Your task to perform on an android device: Show the shopping cart on newegg.com. Search for dell alienware on newegg.com, select the first entry, add it to the cart, then select checkout. Image 0: 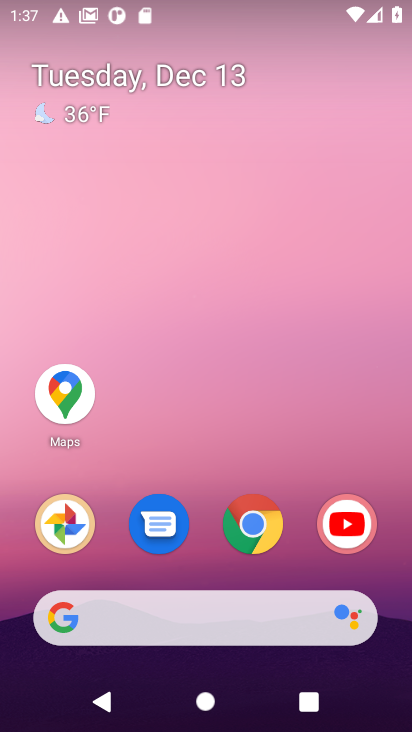
Step 0: click (253, 528)
Your task to perform on an android device: Show the shopping cart on newegg.com. Search for dell alienware on newegg.com, select the first entry, add it to the cart, then select checkout. Image 1: 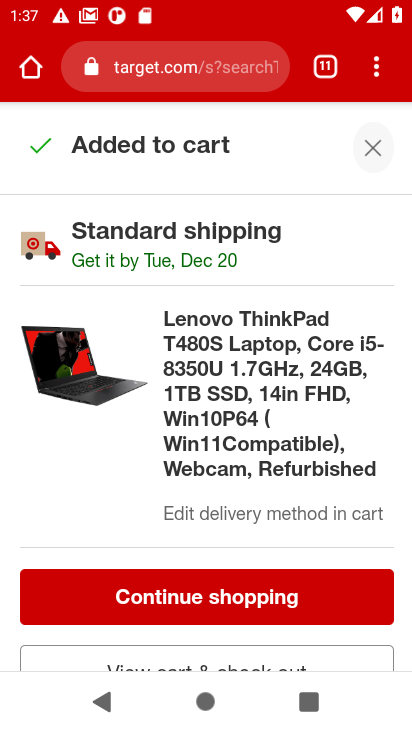
Step 1: click (160, 66)
Your task to perform on an android device: Show the shopping cart on newegg.com. Search for dell alienware on newegg.com, select the first entry, add it to the cart, then select checkout. Image 2: 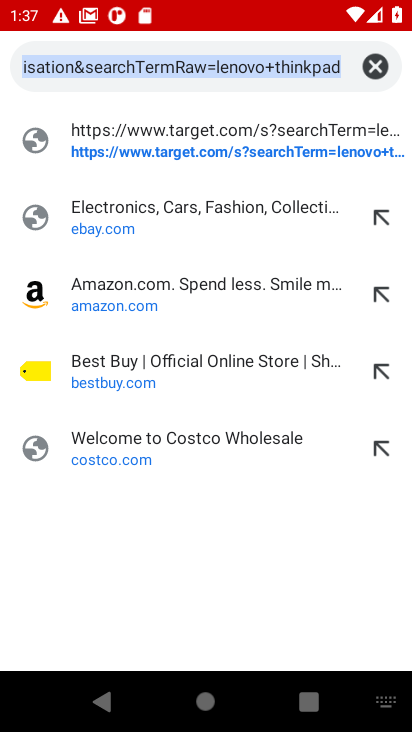
Step 2: type "newegg.com"
Your task to perform on an android device: Show the shopping cart on newegg.com. Search for dell alienware on newegg.com, select the first entry, add it to the cart, then select checkout. Image 3: 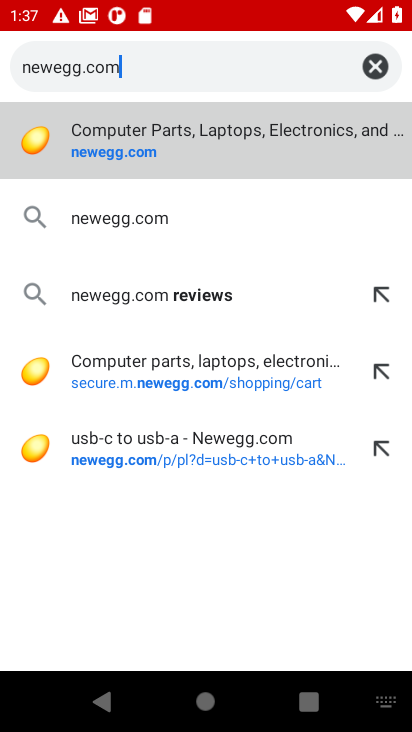
Step 3: click (112, 154)
Your task to perform on an android device: Show the shopping cart on newegg.com. Search for dell alienware on newegg.com, select the first entry, add it to the cart, then select checkout. Image 4: 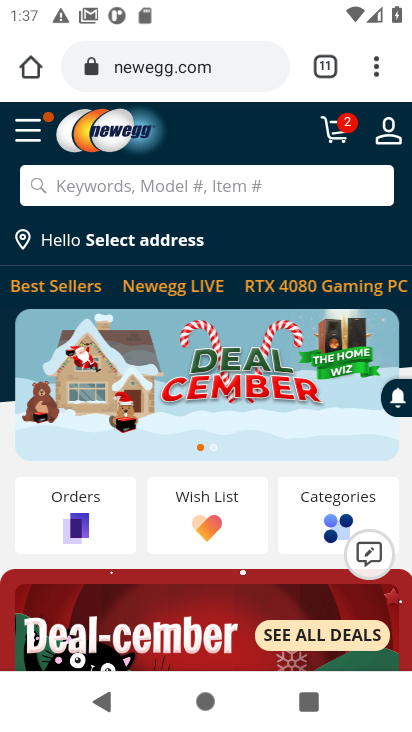
Step 4: click (336, 138)
Your task to perform on an android device: Show the shopping cart on newegg.com. Search for dell alienware on newegg.com, select the first entry, add it to the cart, then select checkout. Image 5: 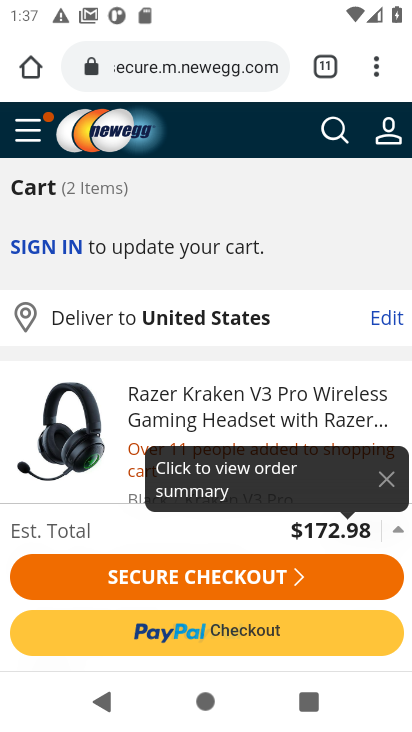
Step 5: click (221, 460)
Your task to perform on an android device: Show the shopping cart on newegg.com. Search for dell alienware on newegg.com, select the first entry, add it to the cart, then select checkout. Image 6: 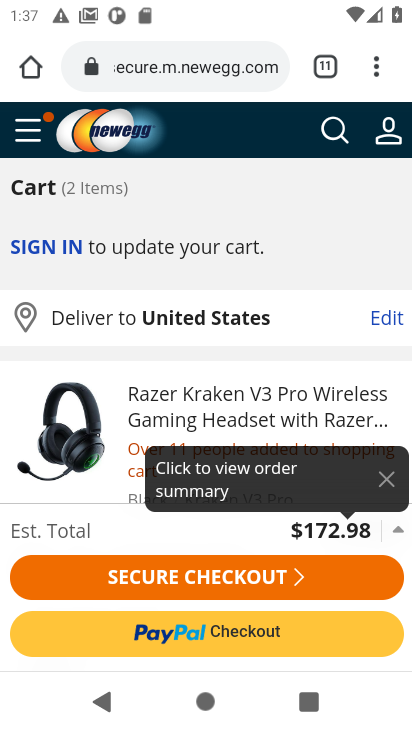
Step 6: drag from (221, 460) to (230, 376)
Your task to perform on an android device: Show the shopping cart on newegg.com. Search for dell alienware on newegg.com, select the first entry, add it to the cart, then select checkout. Image 7: 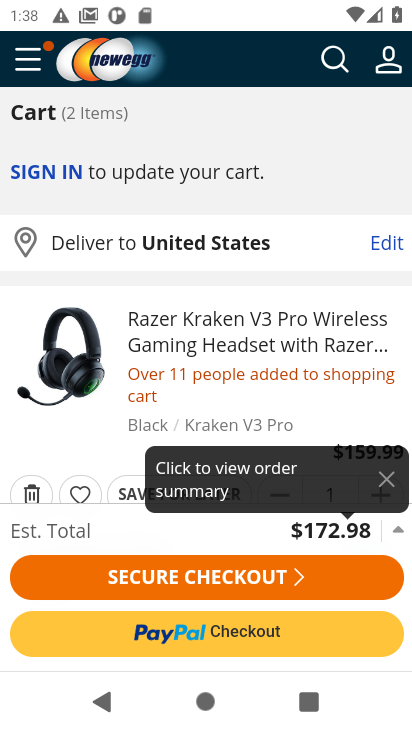
Step 7: click (384, 484)
Your task to perform on an android device: Show the shopping cart on newegg.com. Search for dell alienware on newegg.com, select the first entry, add it to the cart, then select checkout. Image 8: 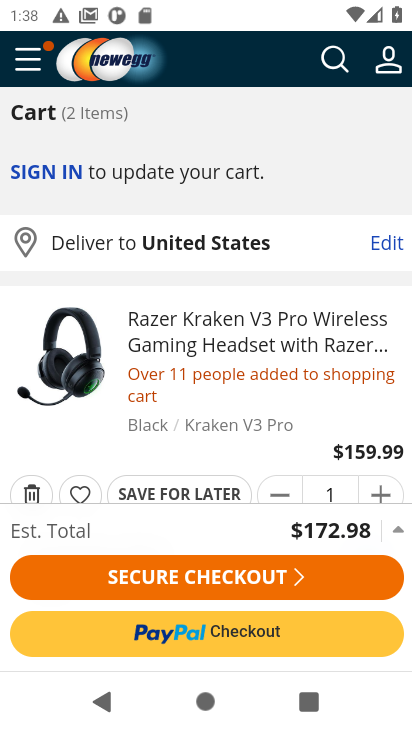
Step 8: drag from (155, 438) to (161, 356)
Your task to perform on an android device: Show the shopping cart on newegg.com. Search for dell alienware on newegg.com, select the first entry, add it to the cart, then select checkout. Image 9: 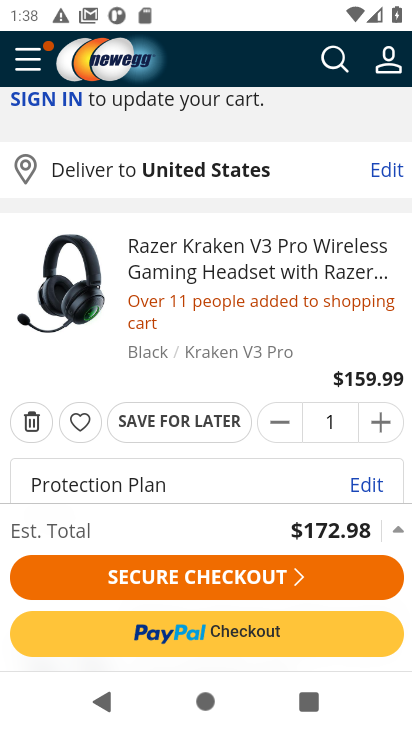
Step 9: click (335, 52)
Your task to perform on an android device: Show the shopping cart on newegg.com. Search for dell alienware on newegg.com, select the first entry, add it to the cart, then select checkout. Image 10: 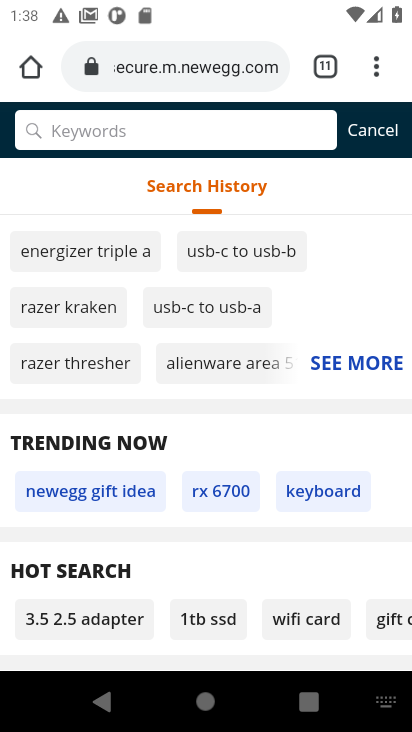
Step 10: type "dell alienware"
Your task to perform on an android device: Show the shopping cart on newegg.com. Search for dell alienware on newegg.com, select the first entry, add it to the cart, then select checkout. Image 11: 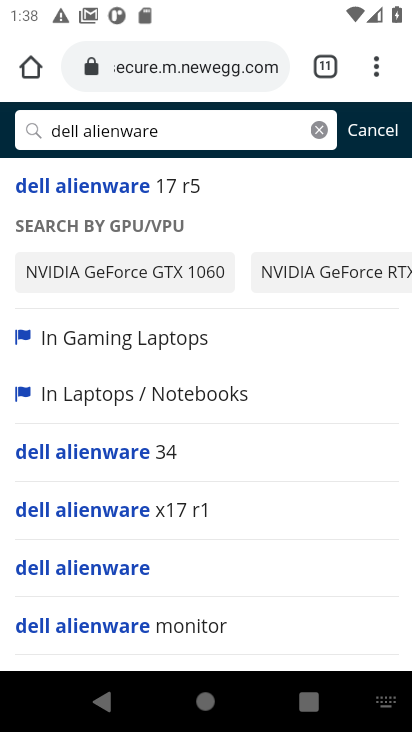
Step 11: click (75, 572)
Your task to perform on an android device: Show the shopping cart on newegg.com. Search for dell alienware on newegg.com, select the first entry, add it to the cart, then select checkout. Image 12: 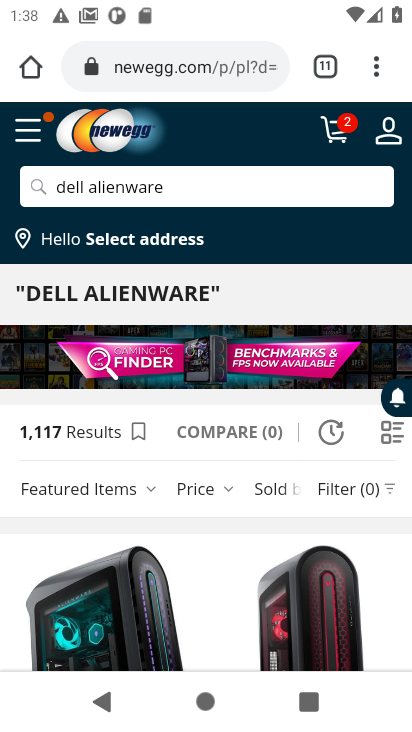
Step 12: drag from (182, 507) to (194, 228)
Your task to perform on an android device: Show the shopping cart on newegg.com. Search for dell alienware on newegg.com, select the first entry, add it to the cart, then select checkout. Image 13: 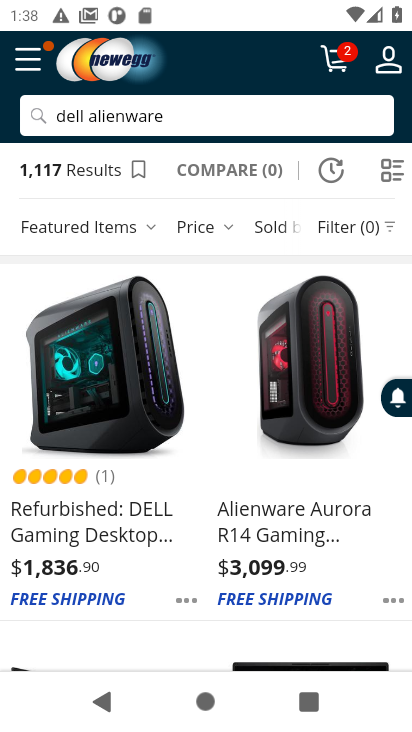
Step 13: click (88, 532)
Your task to perform on an android device: Show the shopping cart on newegg.com. Search for dell alienware on newegg.com, select the first entry, add it to the cart, then select checkout. Image 14: 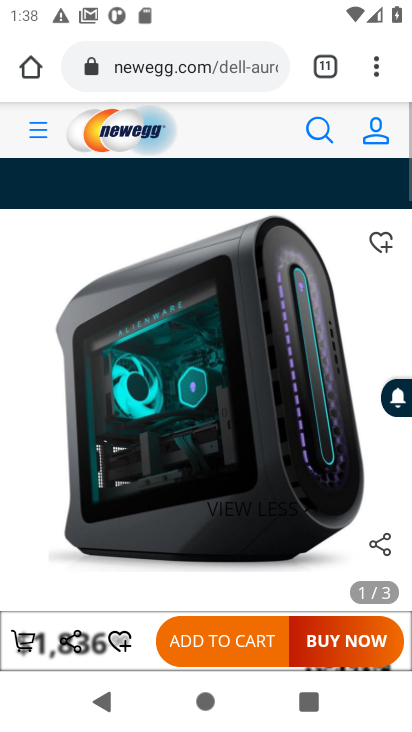
Step 14: drag from (173, 541) to (184, 226)
Your task to perform on an android device: Show the shopping cart on newegg.com. Search for dell alienware on newegg.com, select the first entry, add it to the cart, then select checkout. Image 15: 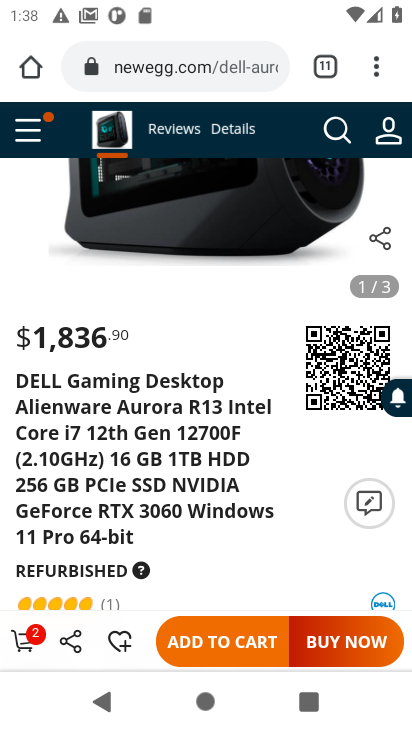
Step 15: click (224, 644)
Your task to perform on an android device: Show the shopping cart on newegg.com. Search for dell alienware on newegg.com, select the first entry, add it to the cart, then select checkout. Image 16: 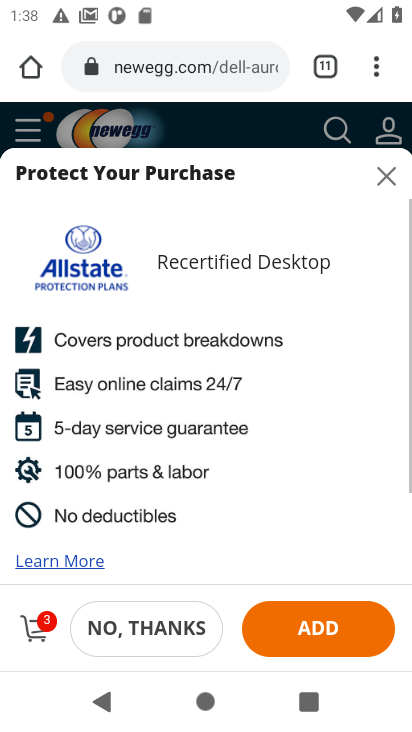
Step 16: click (44, 623)
Your task to perform on an android device: Show the shopping cart on newegg.com. Search for dell alienware on newegg.com, select the first entry, add it to the cart, then select checkout. Image 17: 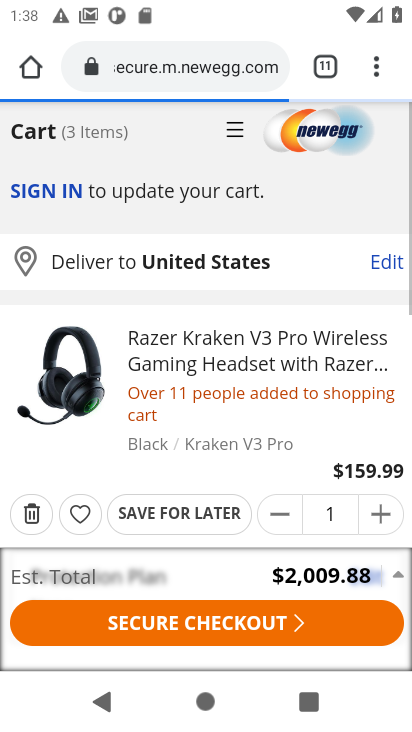
Step 17: click (88, 621)
Your task to perform on an android device: Show the shopping cart on newegg.com. Search for dell alienware on newegg.com, select the first entry, add it to the cart, then select checkout. Image 18: 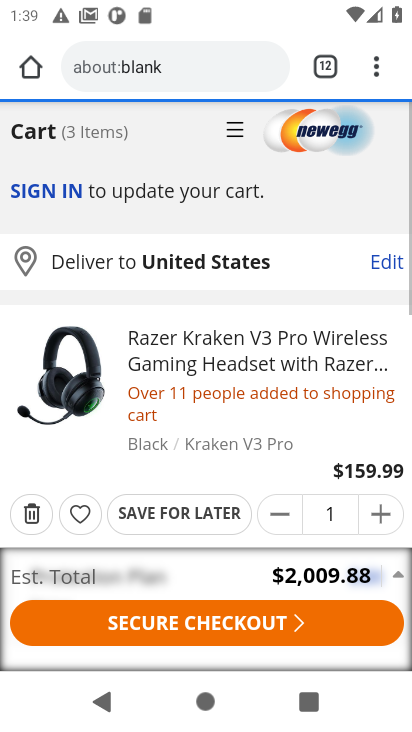
Step 18: click (181, 614)
Your task to perform on an android device: Show the shopping cart on newegg.com. Search for dell alienware on newegg.com, select the first entry, add it to the cart, then select checkout. Image 19: 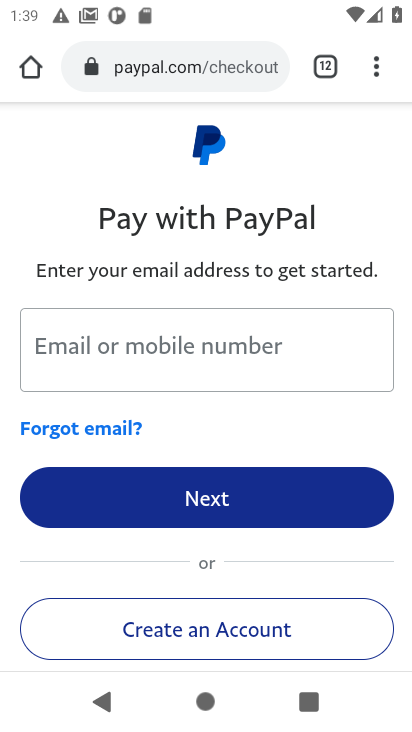
Step 19: task complete